Your task to perform on an android device: Go to Yahoo.com Image 0: 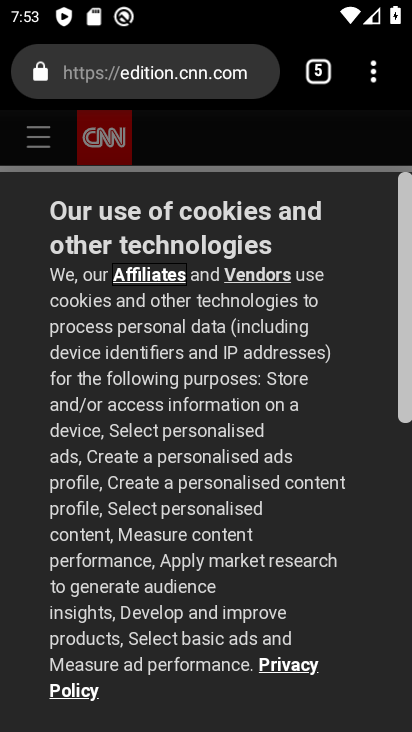
Step 0: click (375, 74)
Your task to perform on an android device: Go to Yahoo.com Image 1: 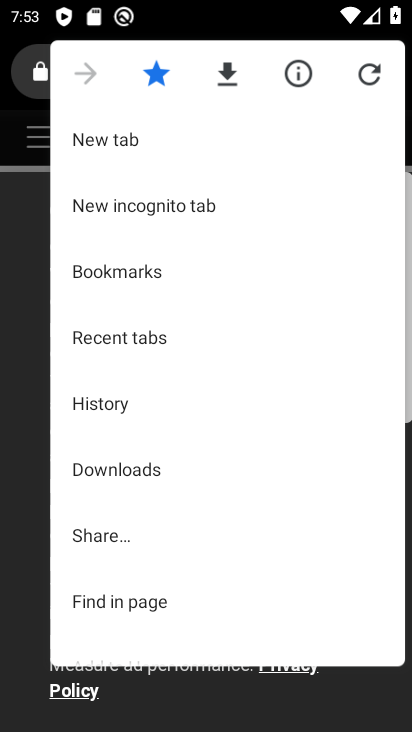
Step 1: click (112, 142)
Your task to perform on an android device: Go to Yahoo.com Image 2: 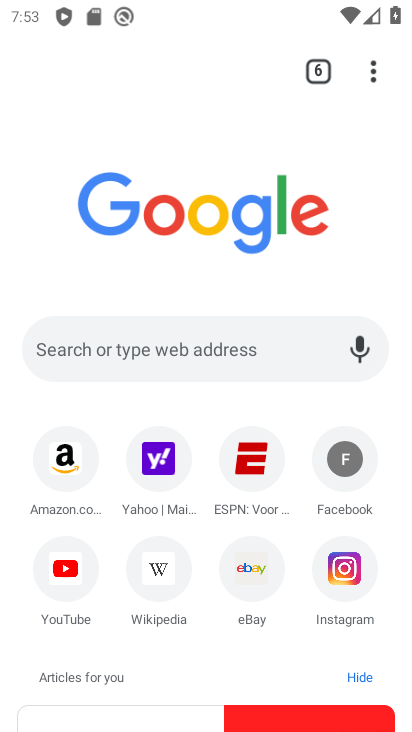
Step 2: click (158, 465)
Your task to perform on an android device: Go to Yahoo.com Image 3: 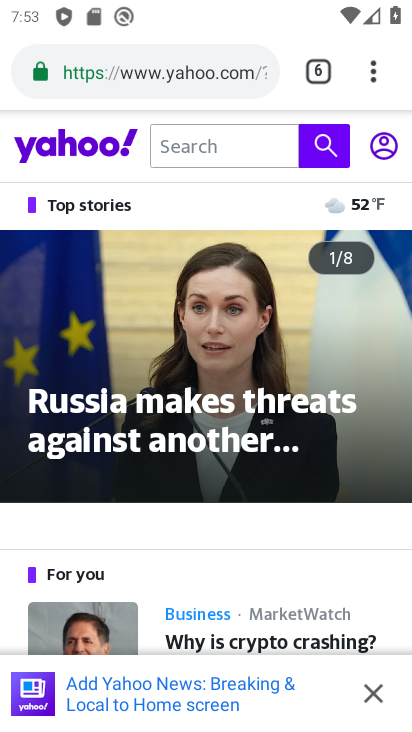
Step 3: task complete